Your task to perform on an android device: toggle improve location accuracy Image 0: 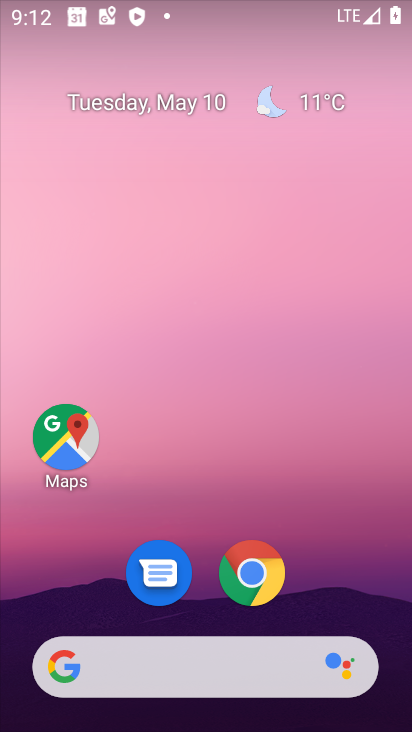
Step 0: drag from (340, 608) to (358, 0)
Your task to perform on an android device: toggle improve location accuracy Image 1: 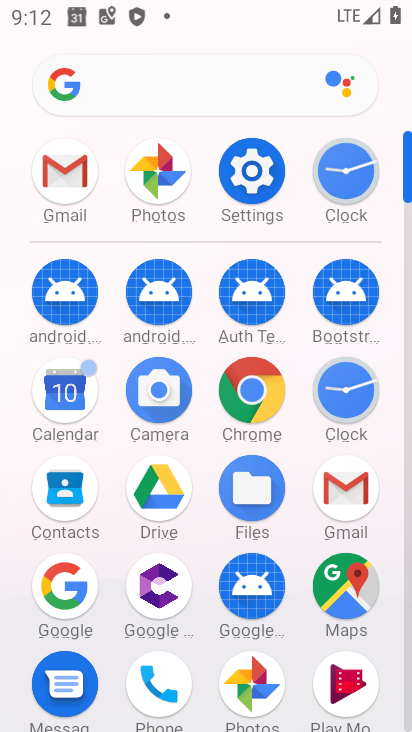
Step 1: click (263, 172)
Your task to perform on an android device: toggle improve location accuracy Image 2: 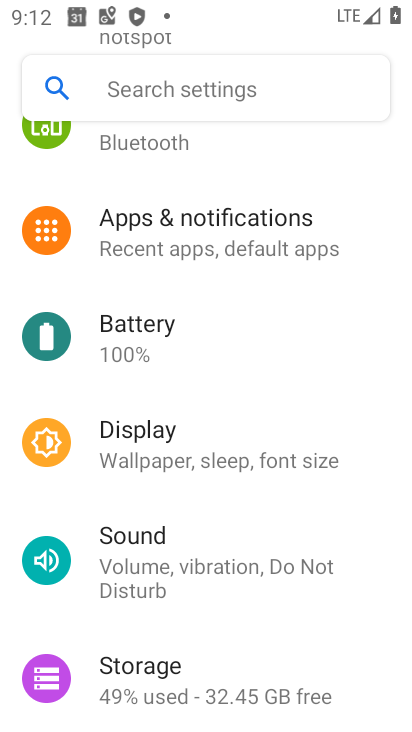
Step 2: drag from (330, 576) to (300, 222)
Your task to perform on an android device: toggle improve location accuracy Image 3: 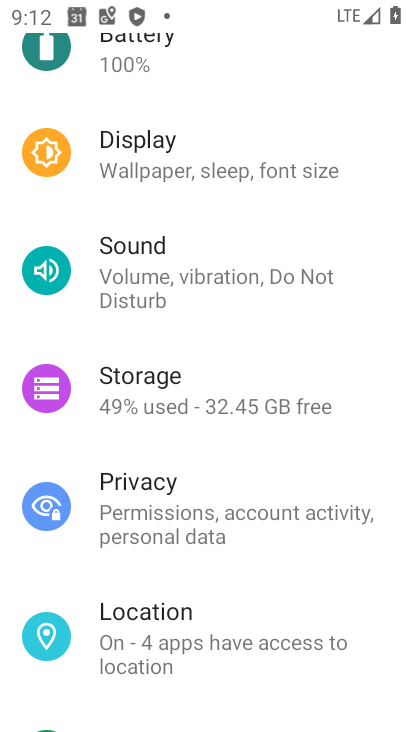
Step 3: click (138, 627)
Your task to perform on an android device: toggle improve location accuracy Image 4: 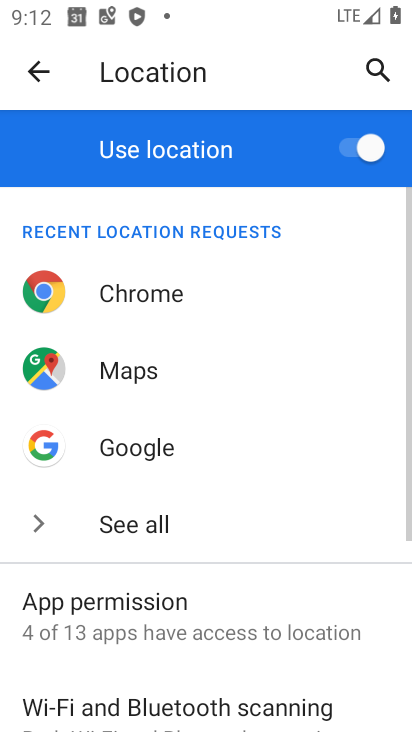
Step 4: drag from (180, 632) to (179, 201)
Your task to perform on an android device: toggle improve location accuracy Image 5: 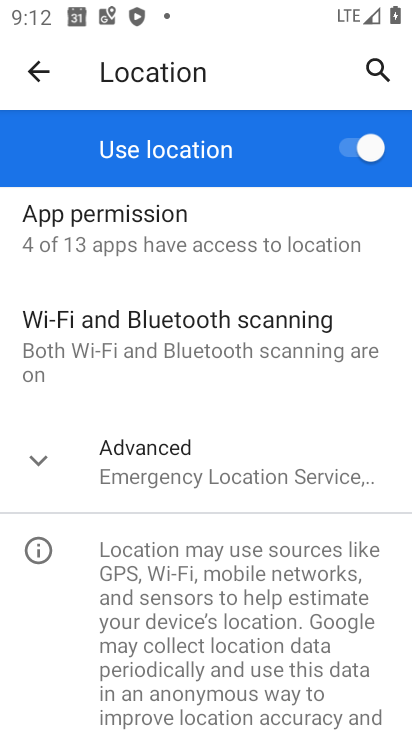
Step 5: click (34, 472)
Your task to perform on an android device: toggle improve location accuracy Image 6: 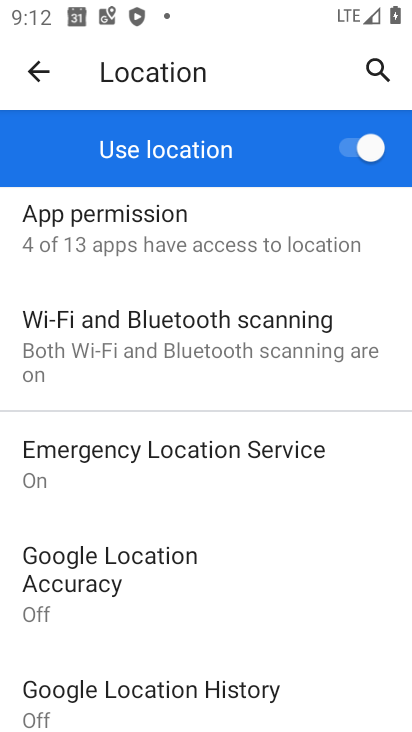
Step 6: click (81, 582)
Your task to perform on an android device: toggle improve location accuracy Image 7: 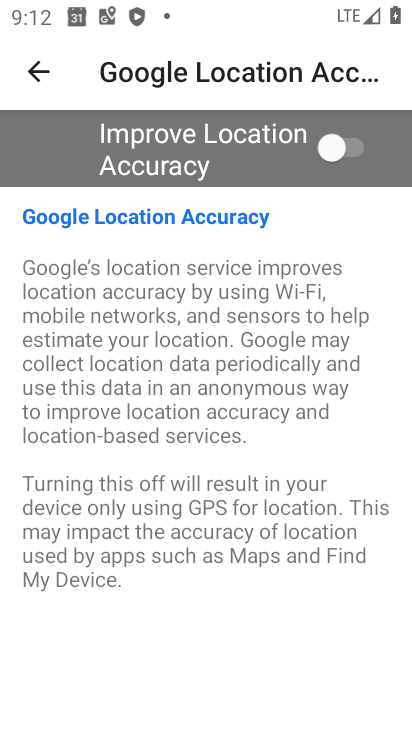
Step 7: click (321, 157)
Your task to perform on an android device: toggle improve location accuracy Image 8: 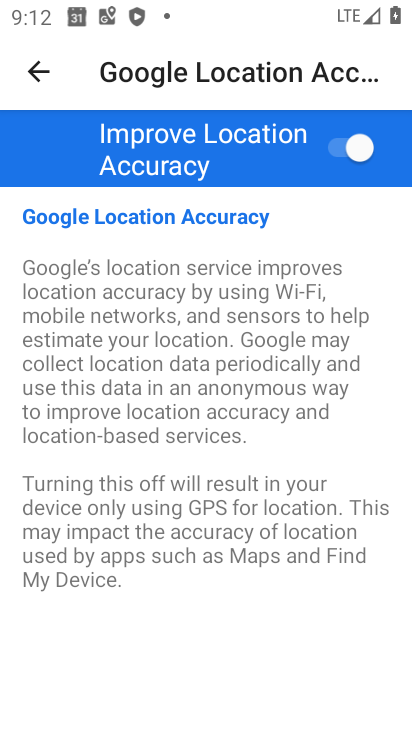
Step 8: task complete